Your task to perform on an android device: Open Chrome and go to settings Image 0: 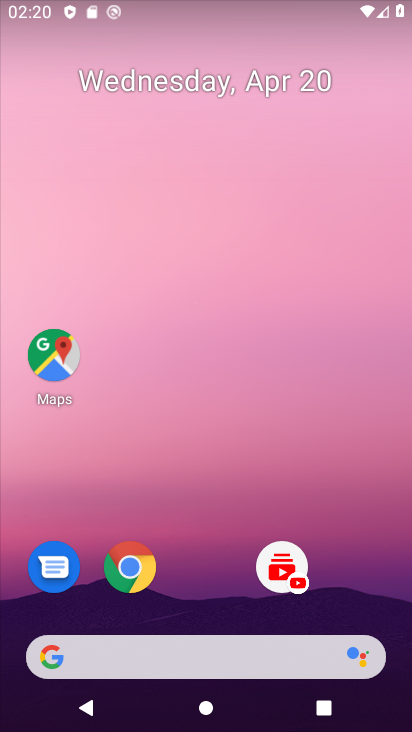
Step 0: drag from (208, 515) to (279, 244)
Your task to perform on an android device: Open Chrome and go to settings Image 1: 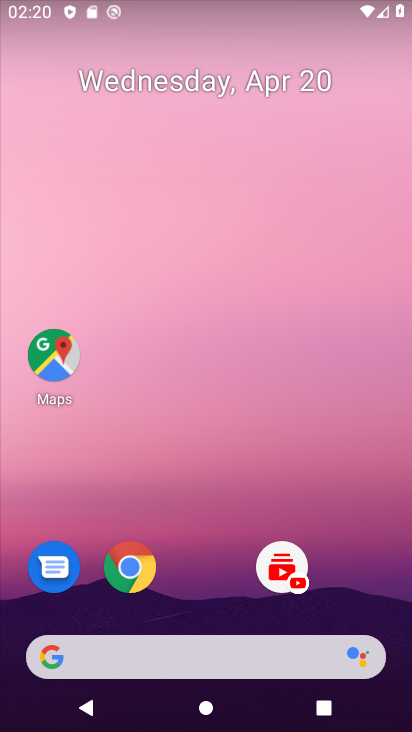
Step 1: drag from (239, 549) to (311, 33)
Your task to perform on an android device: Open Chrome and go to settings Image 2: 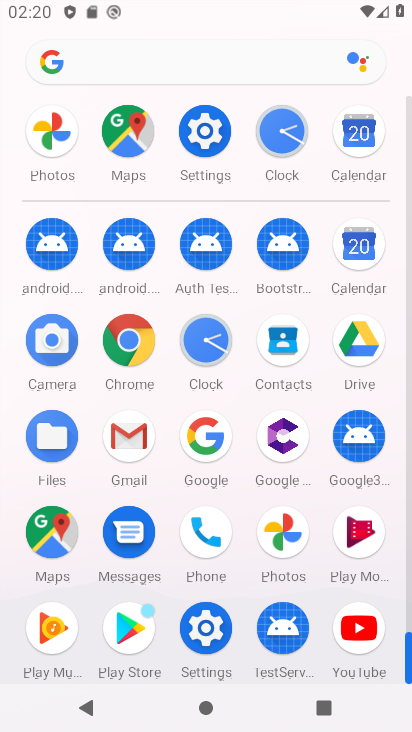
Step 2: click (122, 342)
Your task to perform on an android device: Open Chrome and go to settings Image 3: 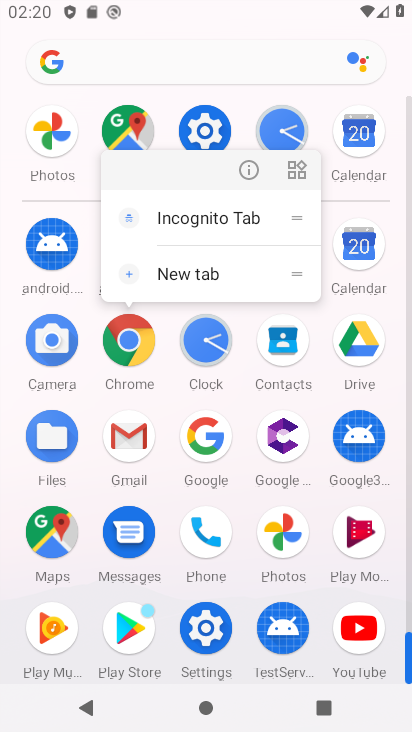
Step 3: click (255, 171)
Your task to perform on an android device: Open Chrome and go to settings Image 4: 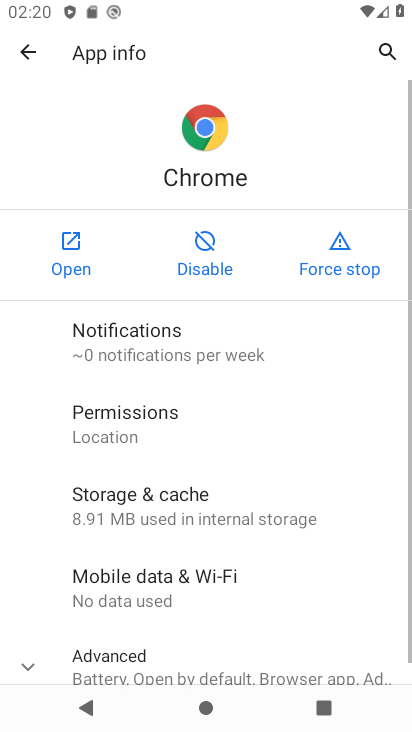
Step 4: click (65, 264)
Your task to perform on an android device: Open Chrome and go to settings Image 5: 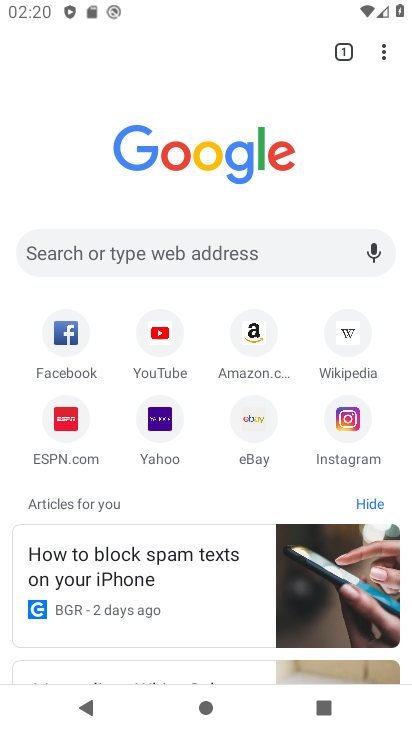
Step 5: drag from (189, 476) to (220, 118)
Your task to perform on an android device: Open Chrome and go to settings Image 6: 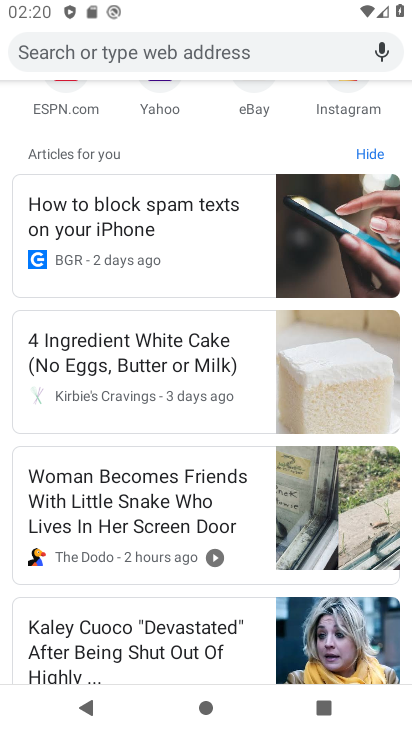
Step 6: drag from (219, 276) to (263, 659)
Your task to perform on an android device: Open Chrome and go to settings Image 7: 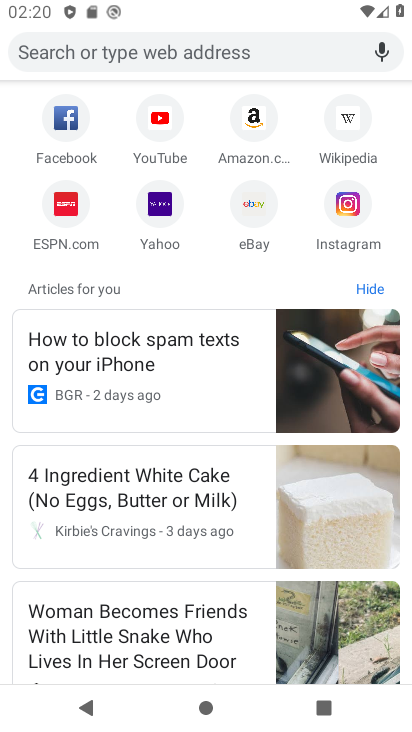
Step 7: drag from (290, 134) to (254, 554)
Your task to perform on an android device: Open Chrome and go to settings Image 8: 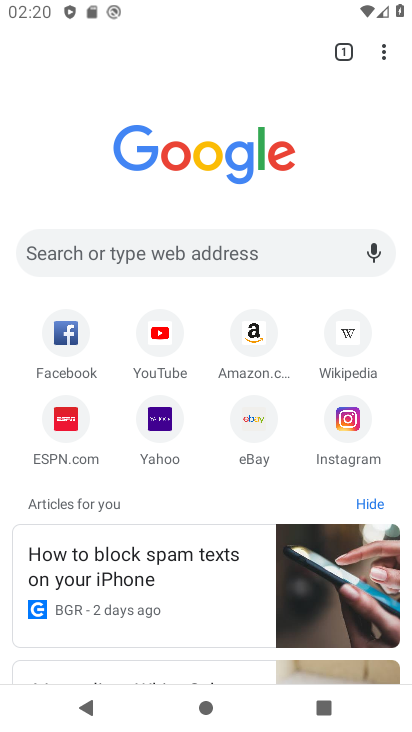
Step 8: click (383, 37)
Your task to perform on an android device: Open Chrome and go to settings Image 9: 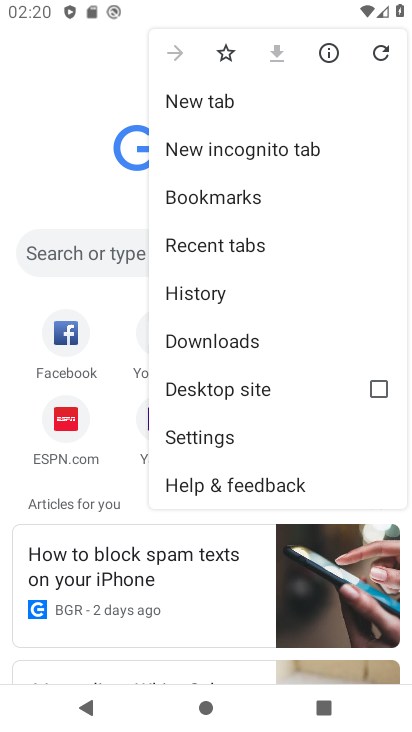
Step 9: click (218, 420)
Your task to perform on an android device: Open Chrome and go to settings Image 10: 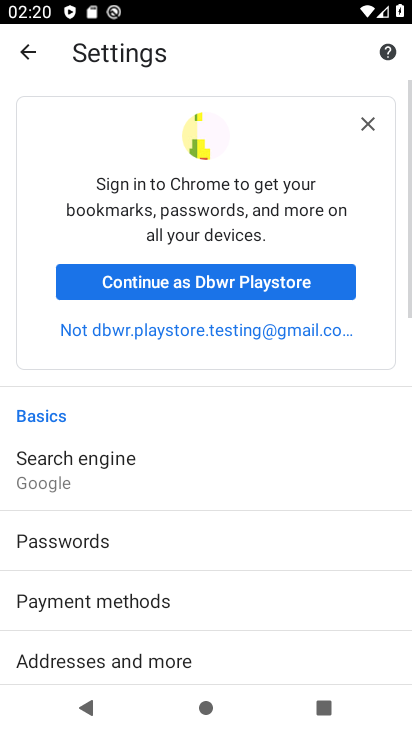
Step 10: task complete